Your task to perform on an android device: Show me recent news Image 0: 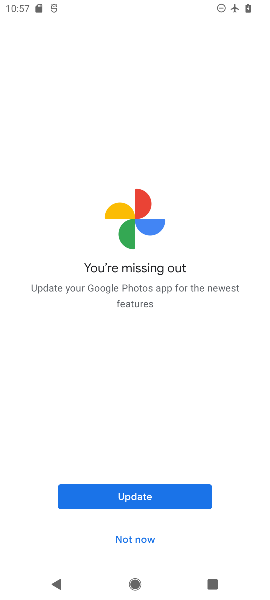
Step 0: press home button
Your task to perform on an android device: Show me recent news Image 1: 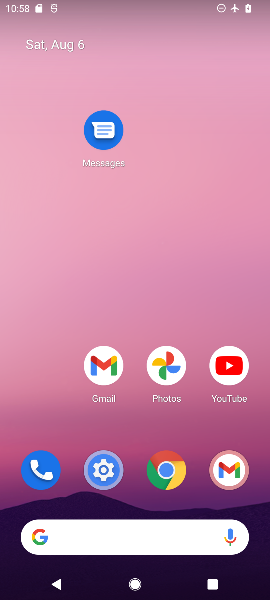
Step 1: drag from (124, 539) to (143, 92)
Your task to perform on an android device: Show me recent news Image 2: 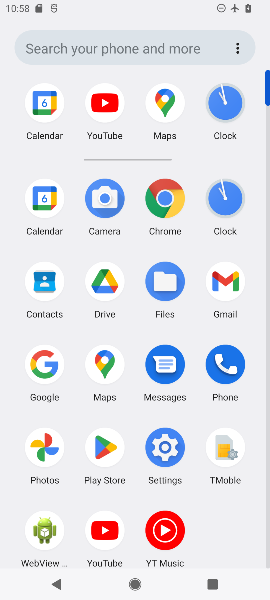
Step 2: click (56, 374)
Your task to perform on an android device: Show me recent news Image 3: 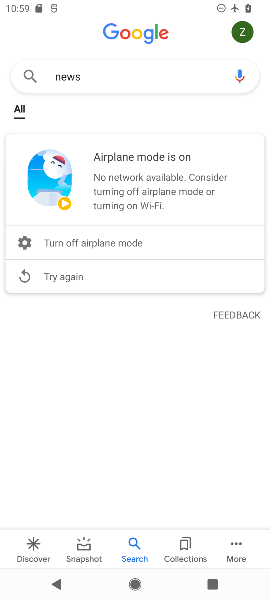
Step 3: task complete